Your task to perform on an android device: What's the weather? Image 0: 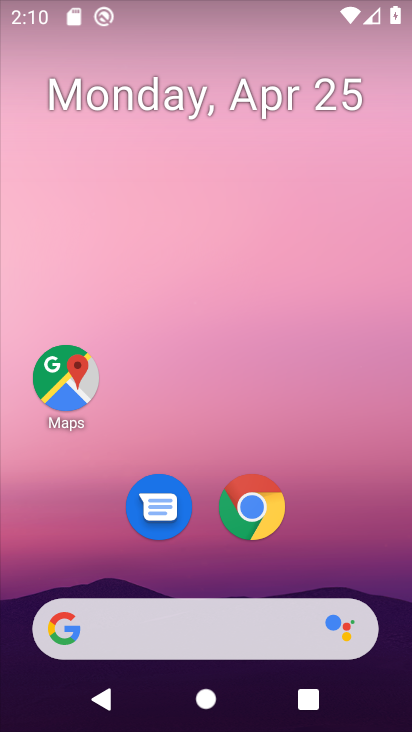
Step 0: drag from (186, 627) to (226, 81)
Your task to perform on an android device: What's the weather? Image 1: 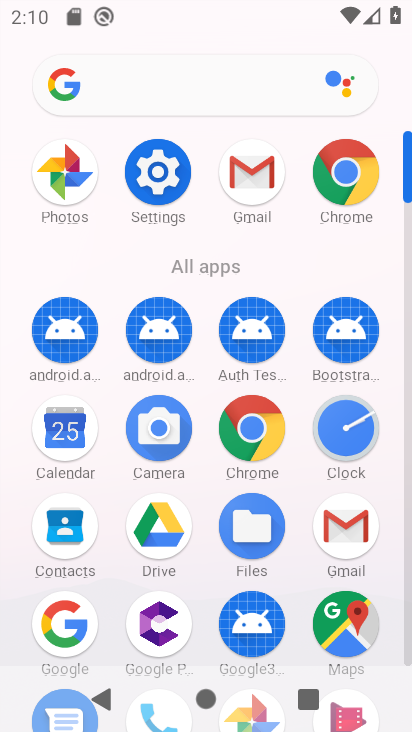
Step 1: click (77, 623)
Your task to perform on an android device: What's the weather? Image 2: 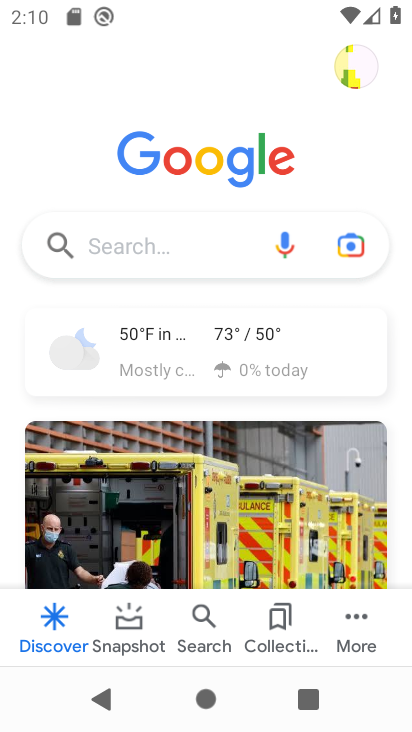
Step 2: click (225, 331)
Your task to perform on an android device: What's the weather? Image 3: 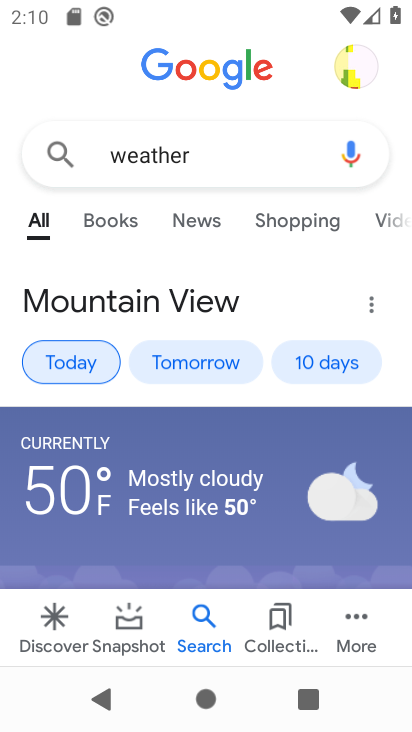
Step 3: task complete